Your task to perform on an android device: turn on showing notifications on the lock screen Image 0: 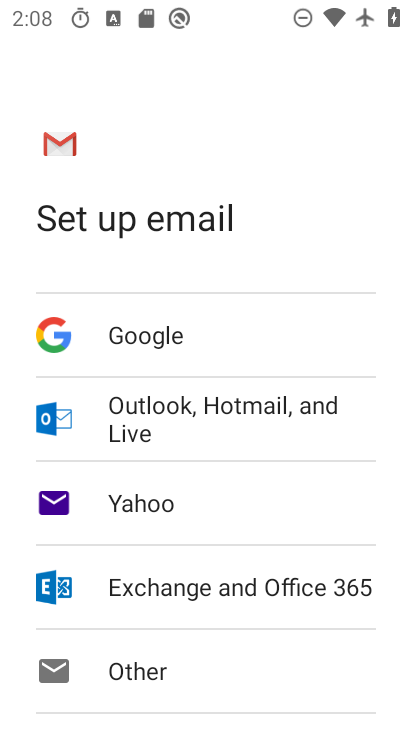
Step 0: drag from (201, 643) to (237, 383)
Your task to perform on an android device: turn on showing notifications on the lock screen Image 1: 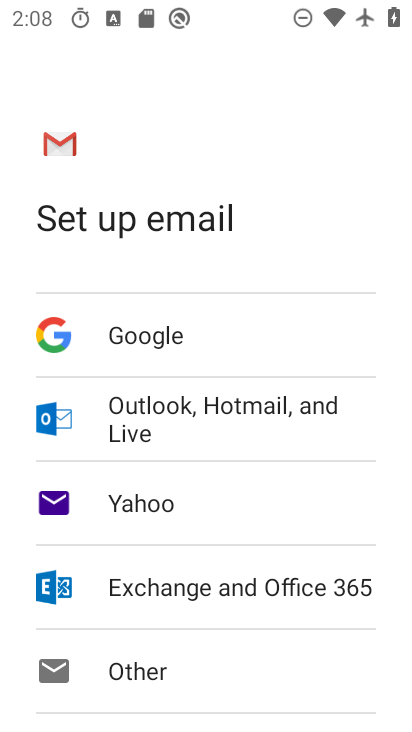
Step 1: press home button
Your task to perform on an android device: turn on showing notifications on the lock screen Image 2: 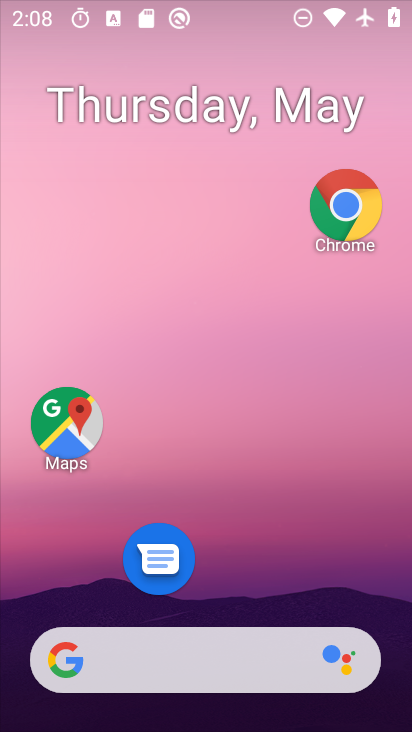
Step 2: drag from (235, 686) to (258, 259)
Your task to perform on an android device: turn on showing notifications on the lock screen Image 3: 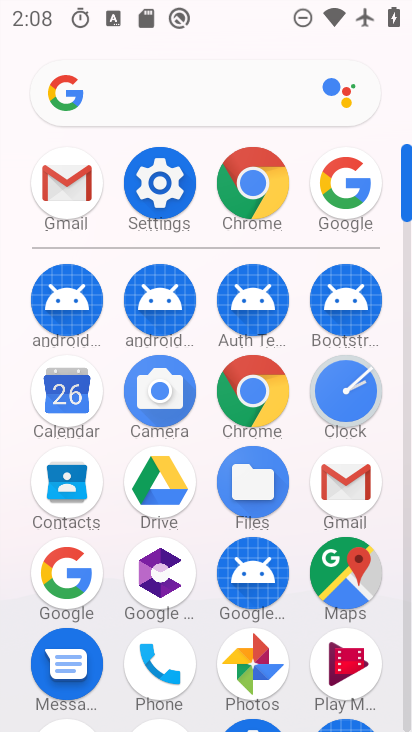
Step 3: click (181, 209)
Your task to perform on an android device: turn on showing notifications on the lock screen Image 4: 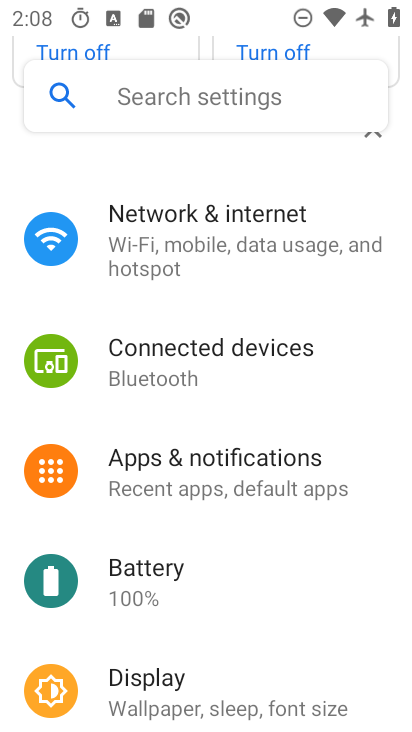
Step 4: drag from (201, 450) to (175, 571)
Your task to perform on an android device: turn on showing notifications on the lock screen Image 5: 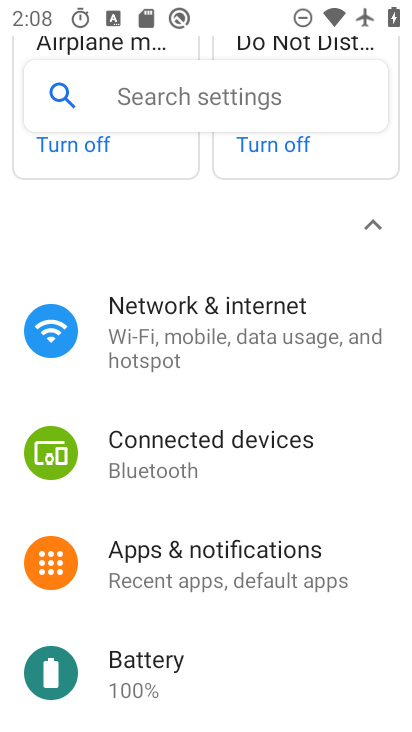
Step 5: click (241, 565)
Your task to perform on an android device: turn on showing notifications on the lock screen Image 6: 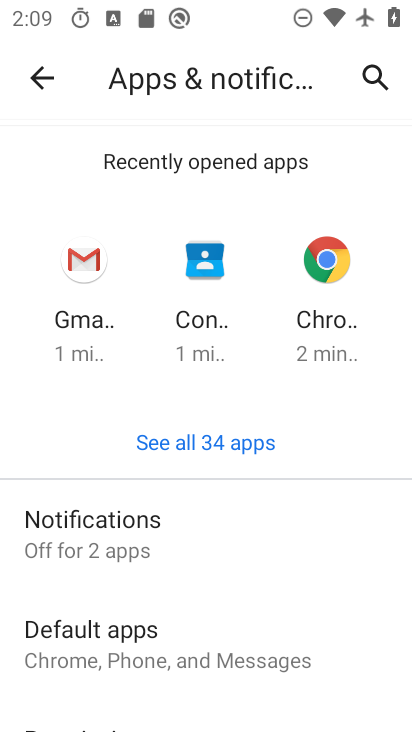
Step 6: click (187, 535)
Your task to perform on an android device: turn on showing notifications on the lock screen Image 7: 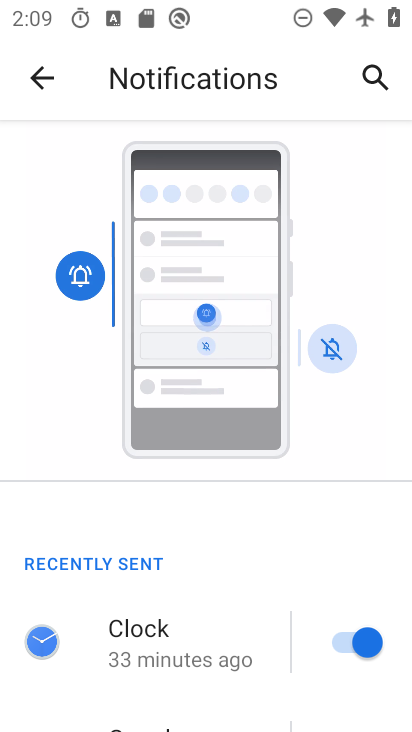
Step 7: drag from (253, 635) to (269, 120)
Your task to perform on an android device: turn on showing notifications on the lock screen Image 8: 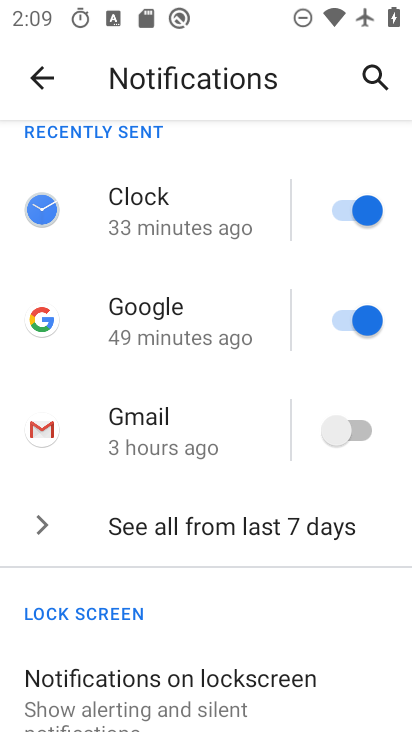
Step 8: click (237, 691)
Your task to perform on an android device: turn on showing notifications on the lock screen Image 9: 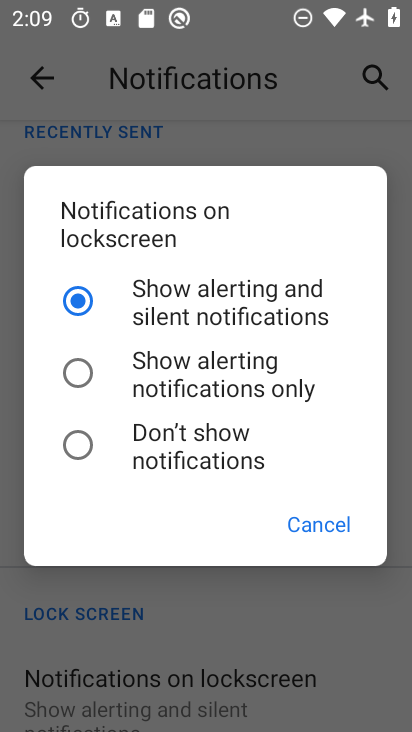
Step 9: task complete